Your task to perform on an android device: change the clock display to show seconds Image 0: 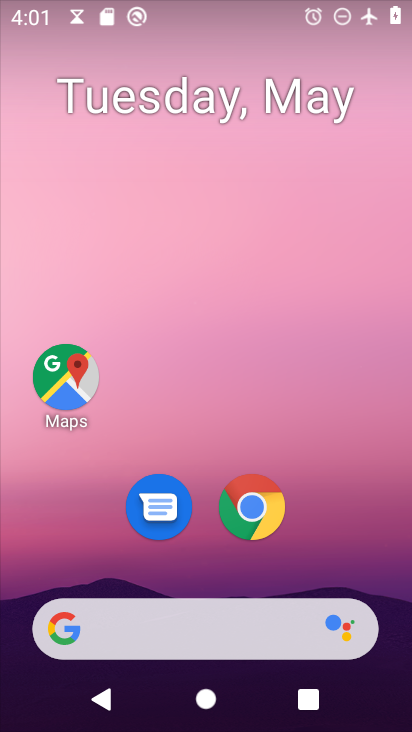
Step 0: drag from (361, 546) to (304, 159)
Your task to perform on an android device: change the clock display to show seconds Image 1: 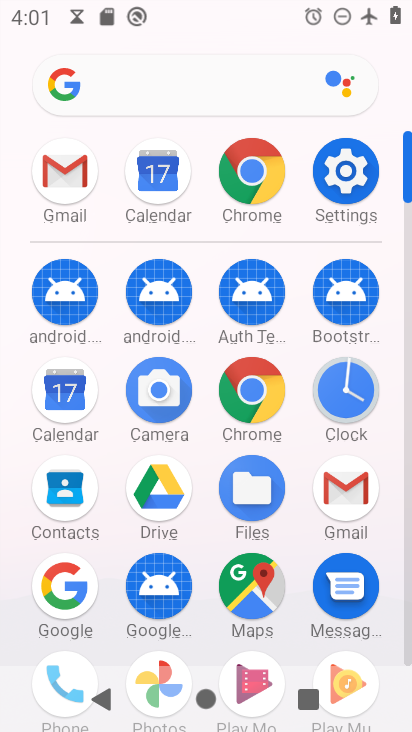
Step 1: click (348, 395)
Your task to perform on an android device: change the clock display to show seconds Image 2: 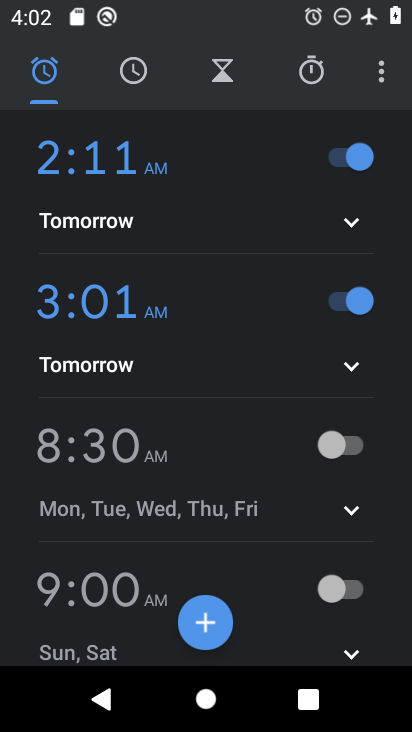
Step 2: click (377, 73)
Your task to perform on an android device: change the clock display to show seconds Image 3: 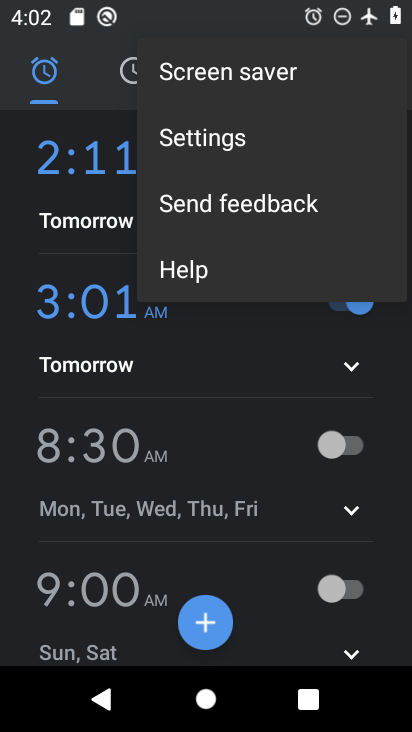
Step 3: click (212, 129)
Your task to perform on an android device: change the clock display to show seconds Image 4: 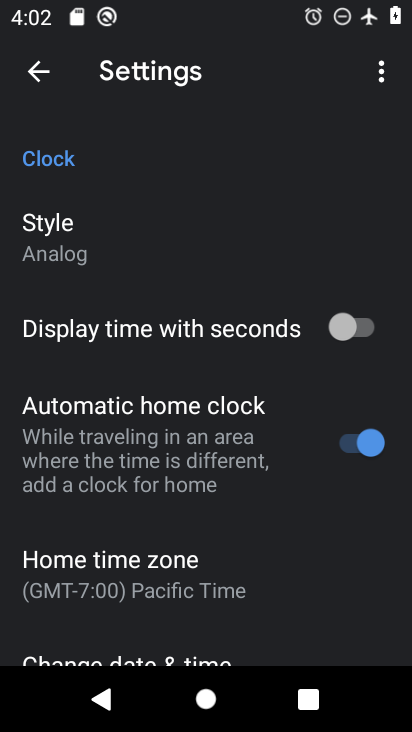
Step 4: click (368, 320)
Your task to perform on an android device: change the clock display to show seconds Image 5: 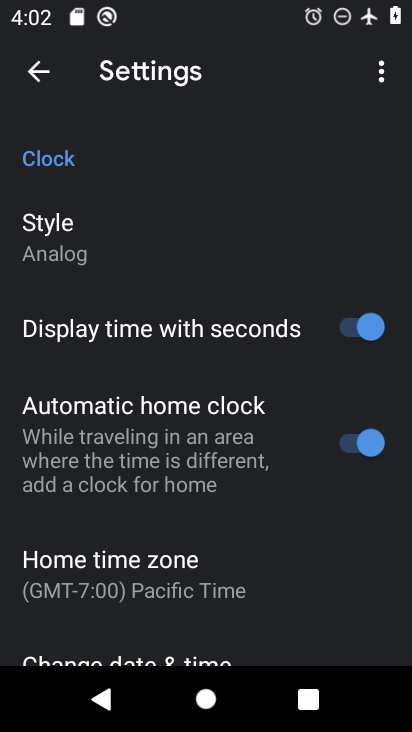
Step 5: task complete